Your task to perform on an android device: Add alienware aurora to the cart on walmart.com Image 0: 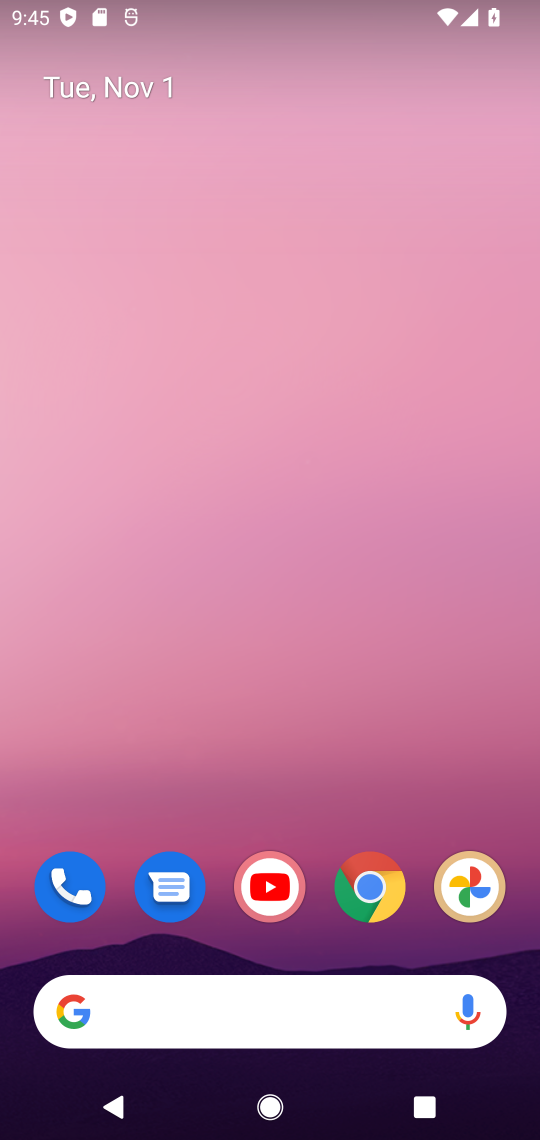
Step 0: press home button
Your task to perform on an android device: Add alienware aurora to the cart on walmart.com Image 1: 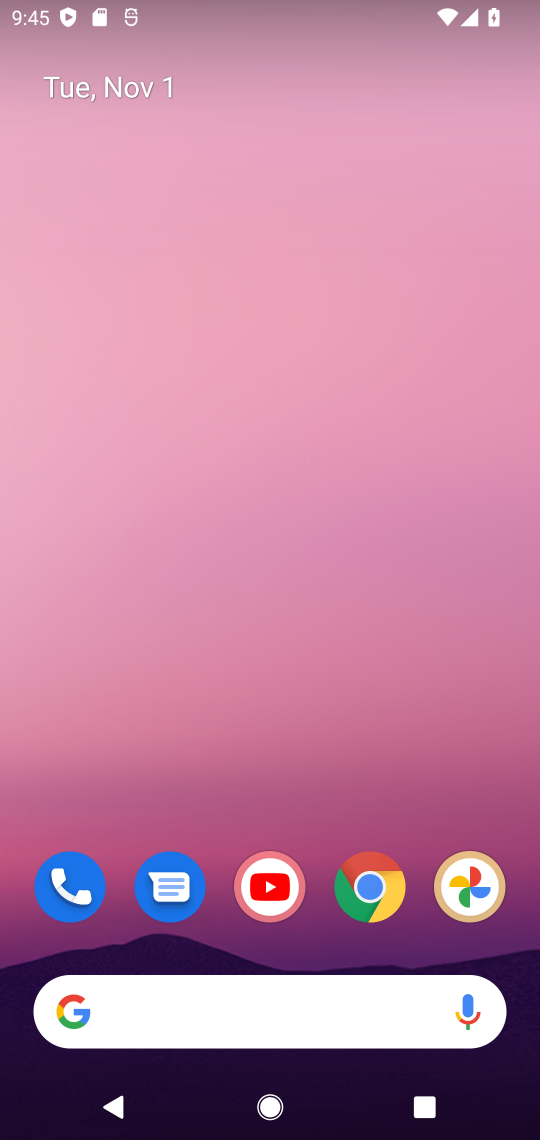
Step 1: click (381, 875)
Your task to perform on an android device: Add alienware aurora to the cart on walmart.com Image 2: 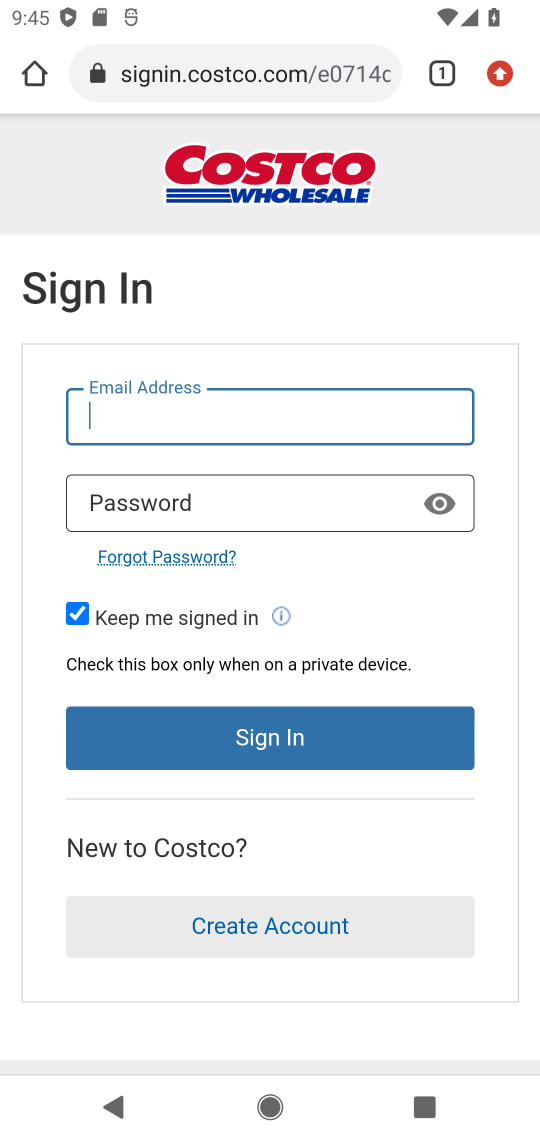
Step 2: click (191, 75)
Your task to perform on an android device: Add alienware aurora to the cart on walmart.com Image 3: 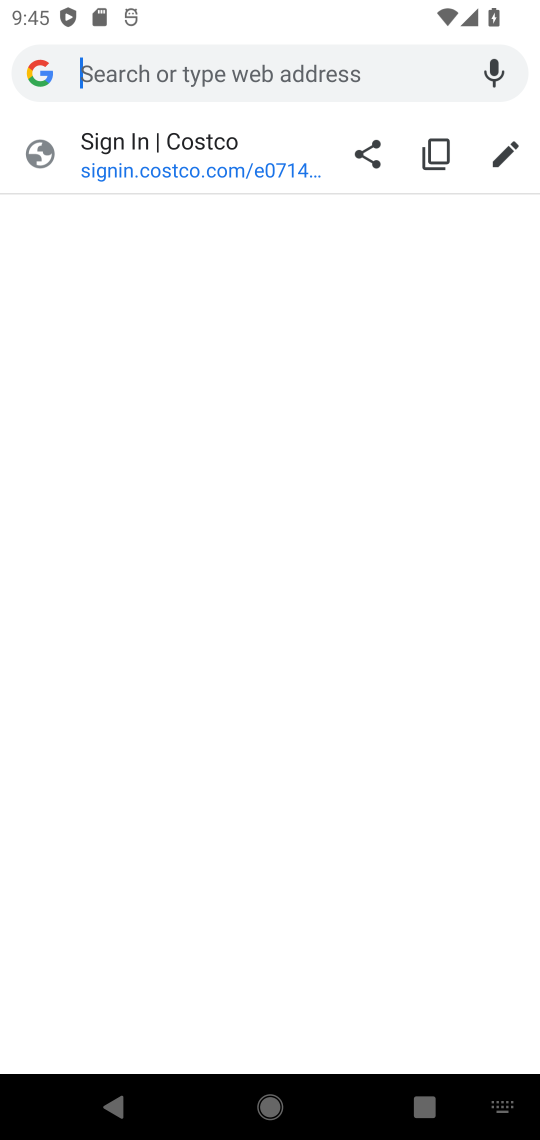
Step 3: type "walmart.com"
Your task to perform on an android device: Add alienware aurora to the cart on walmart.com Image 4: 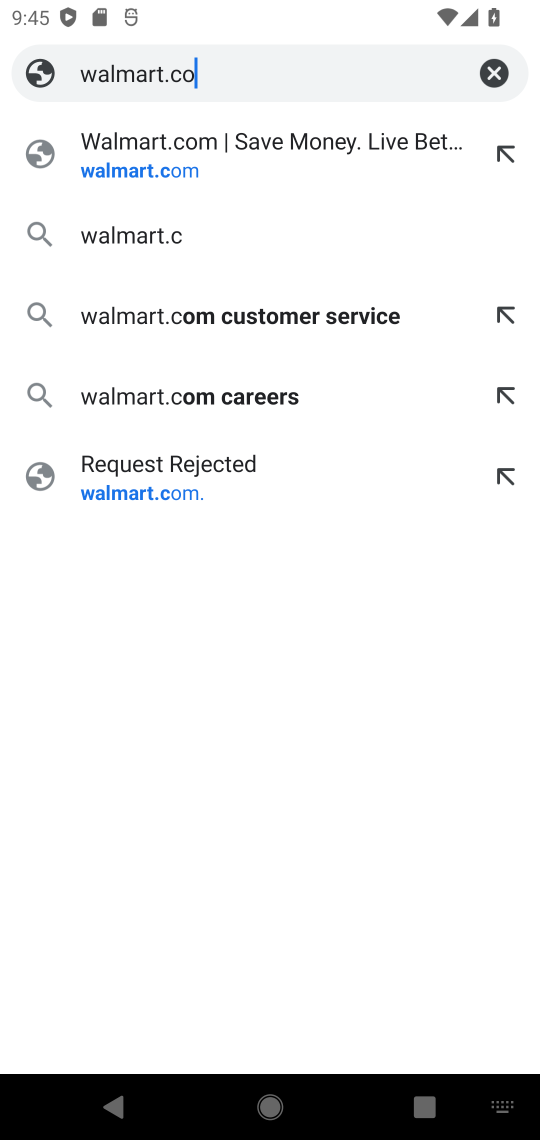
Step 4: press enter
Your task to perform on an android device: Add alienware aurora to the cart on walmart.com Image 5: 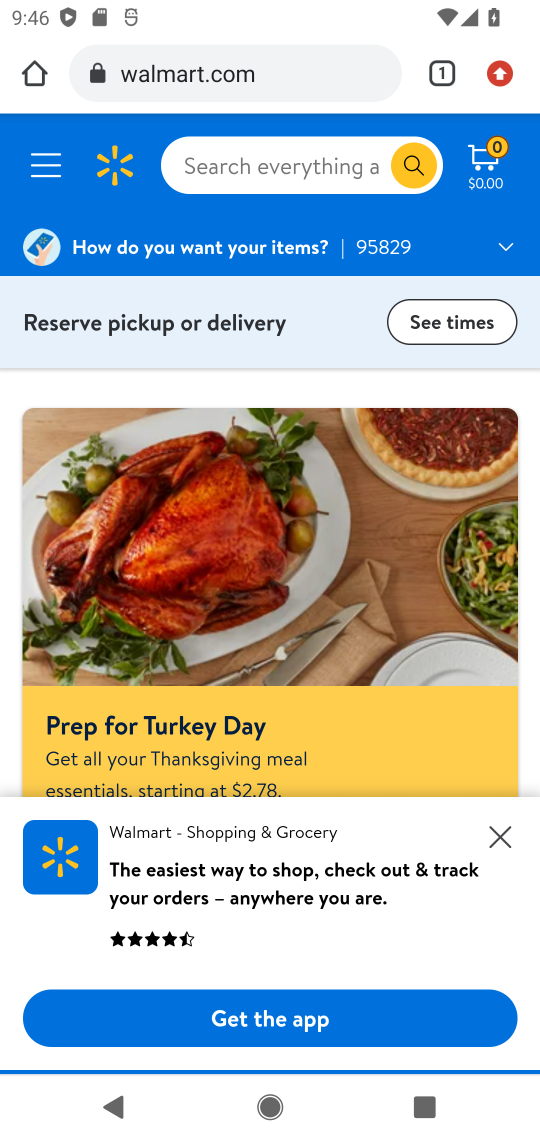
Step 5: click (228, 165)
Your task to perform on an android device: Add alienware aurora to the cart on walmart.com Image 6: 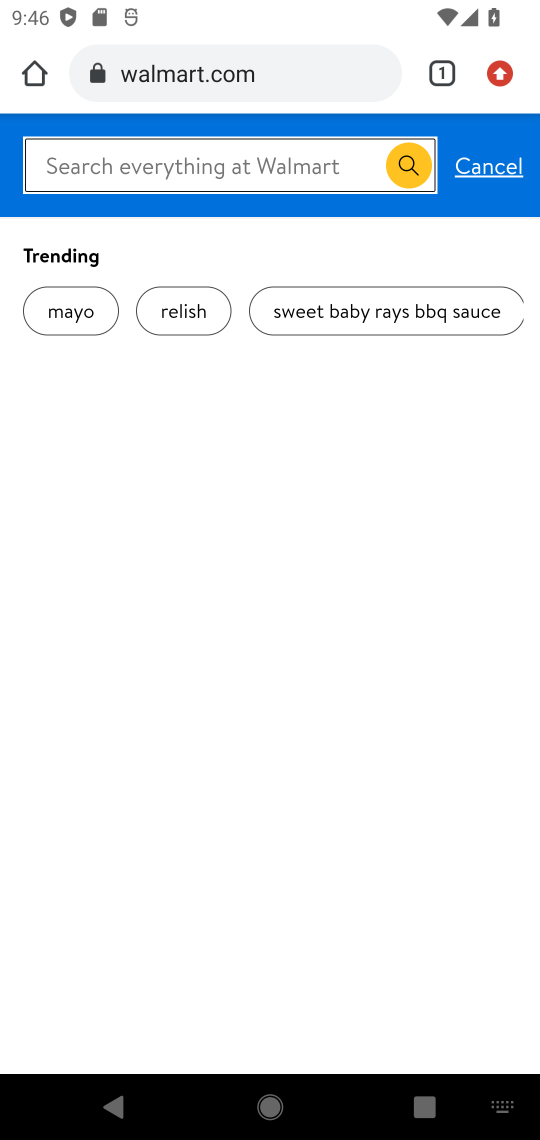
Step 6: press enter
Your task to perform on an android device: Add alienware aurora to the cart on walmart.com Image 7: 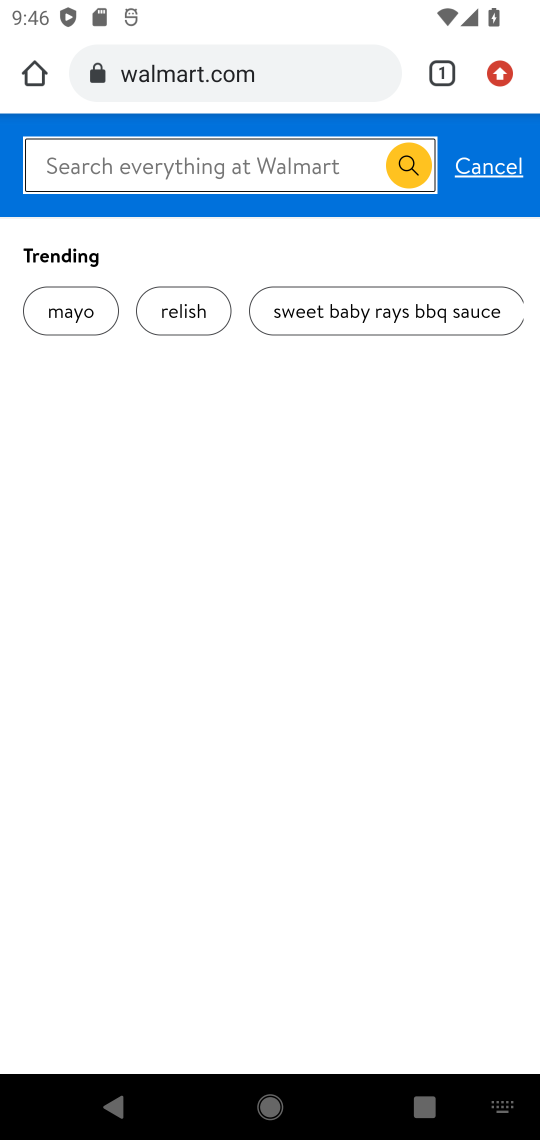
Step 7: type " alienware aurora"
Your task to perform on an android device: Add alienware aurora to the cart on walmart.com Image 8: 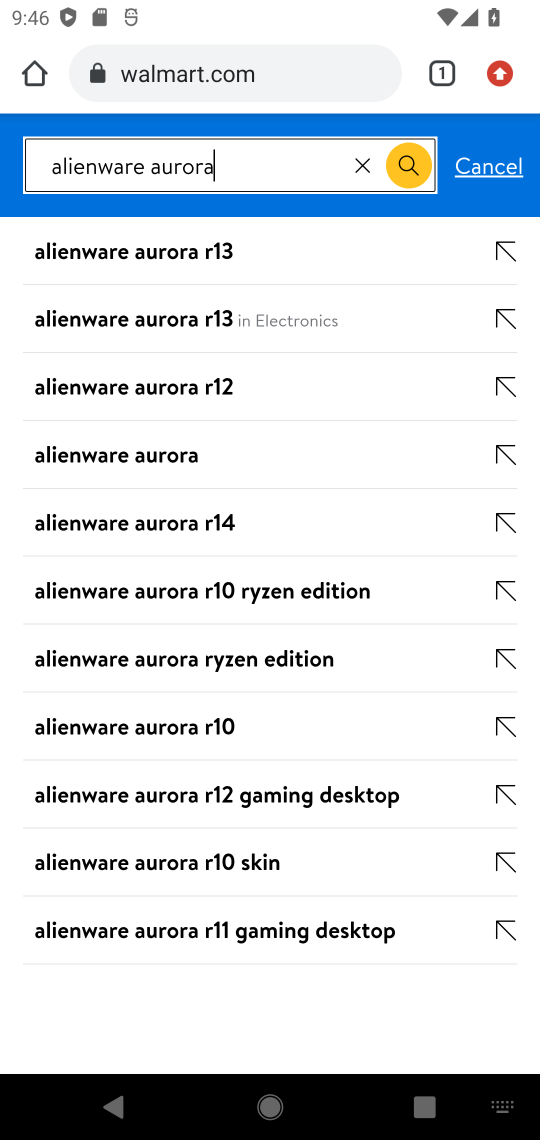
Step 8: click (154, 465)
Your task to perform on an android device: Add alienware aurora to the cart on walmart.com Image 9: 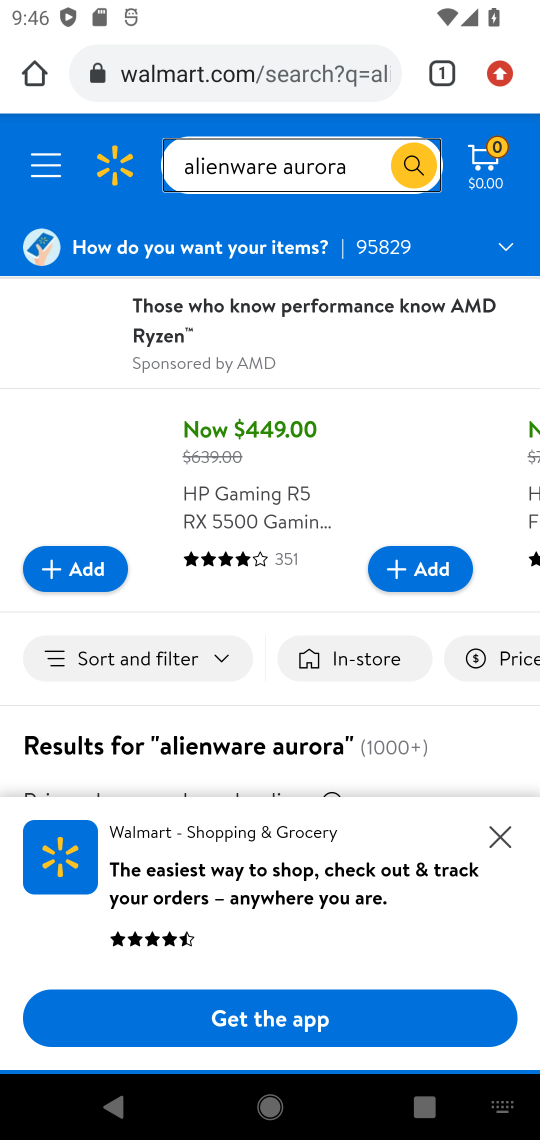
Step 9: click (501, 834)
Your task to perform on an android device: Add alienware aurora to the cart on walmart.com Image 10: 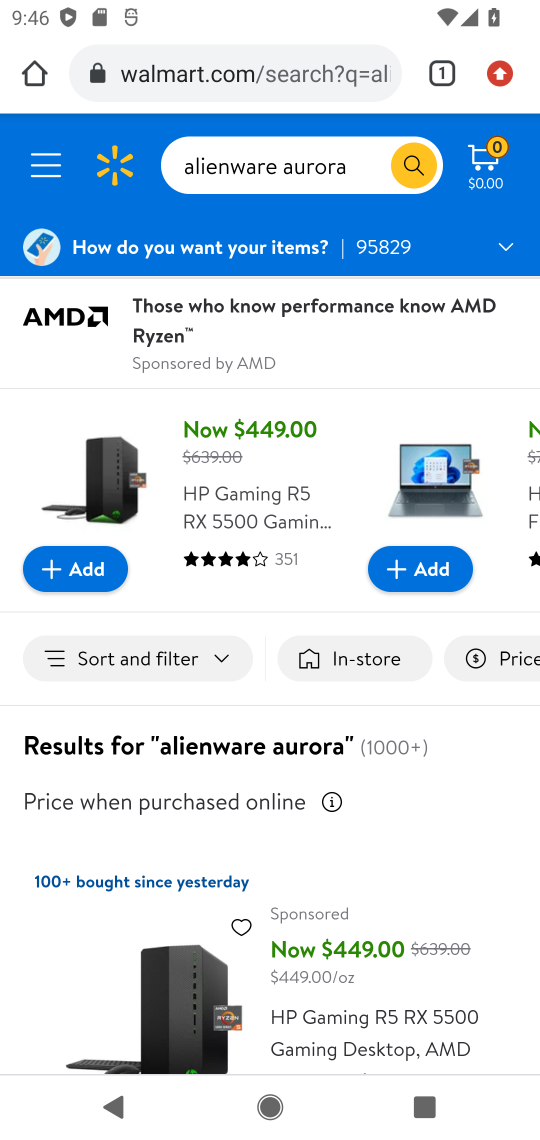
Step 10: drag from (90, 952) to (152, 575)
Your task to perform on an android device: Add alienware aurora to the cart on walmart.com Image 11: 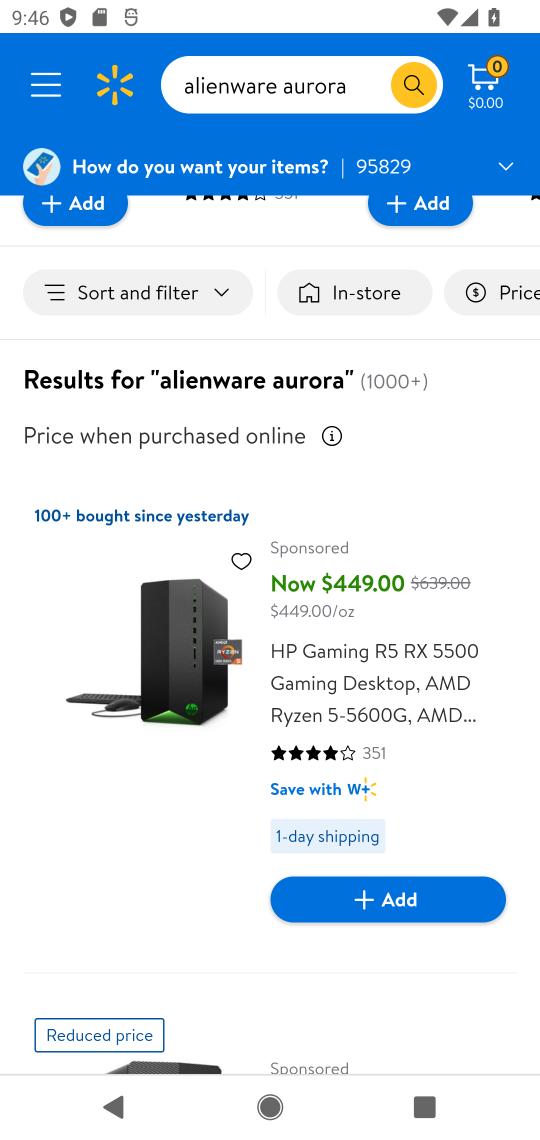
Step 11: drag from (237, 438) to (291, 927)
Your task to perform on an android device: Add alienware aurora to the cart on walmart.com Image 12: 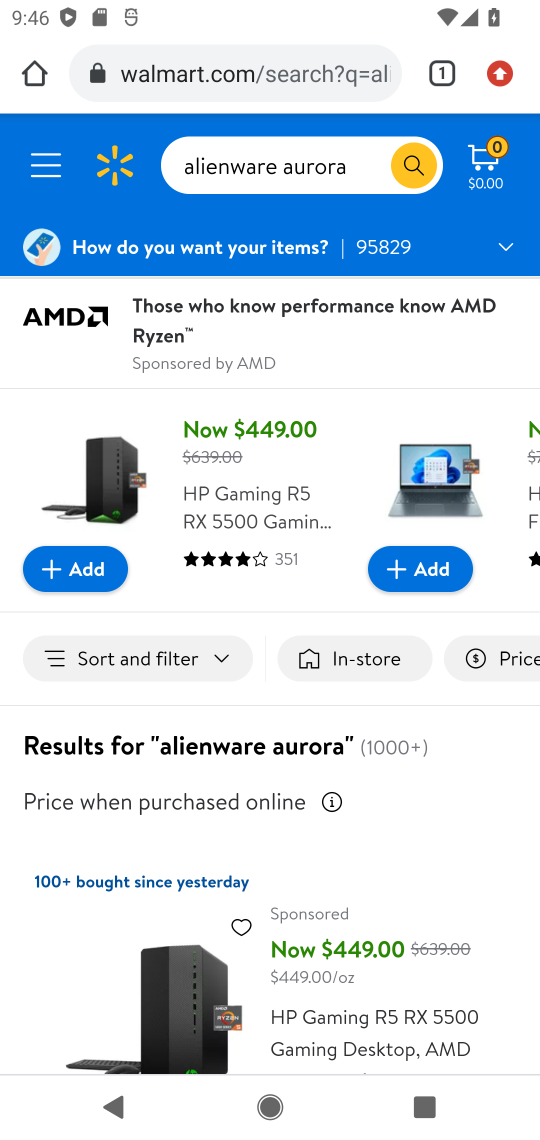
Step 12: click (75, 995)
Your task to perform on an android device: Add alienware aurora to the cart on walmart.com Image 13: 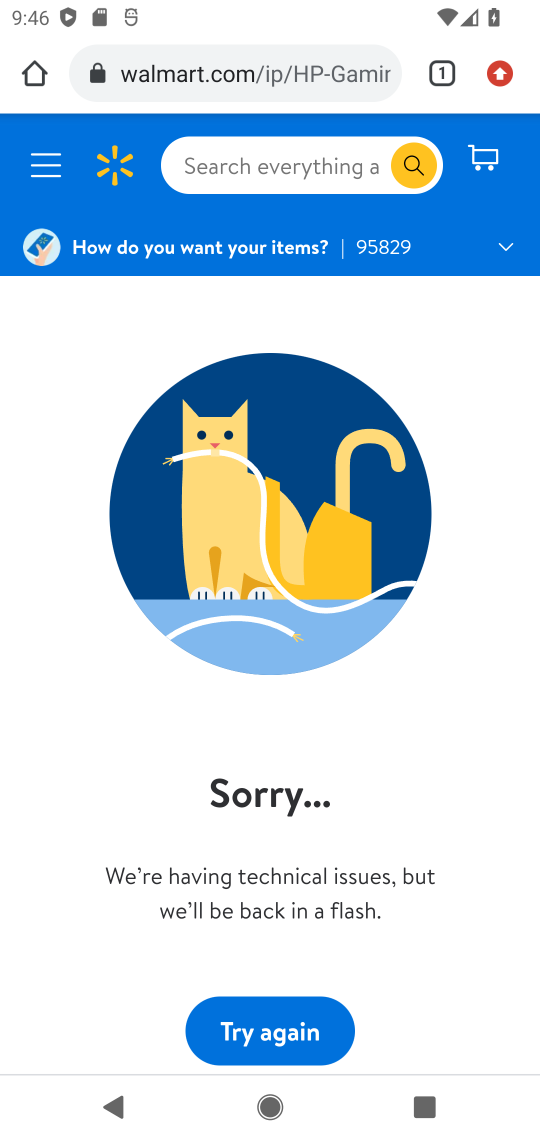
Step 13: press back button
Your task to perform on an android device: Add alienware aurora to the cart on walmart.com Image 14: 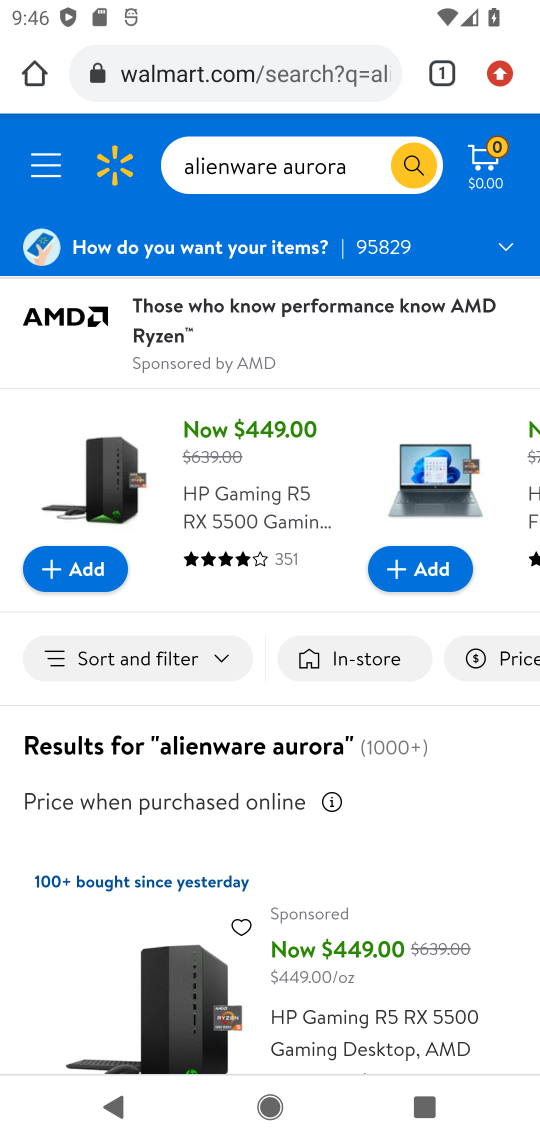
Step 14: click (73, 477)
Your task to perform on an android device: Add alienware aurora to the cart on walmart.com Image 15: 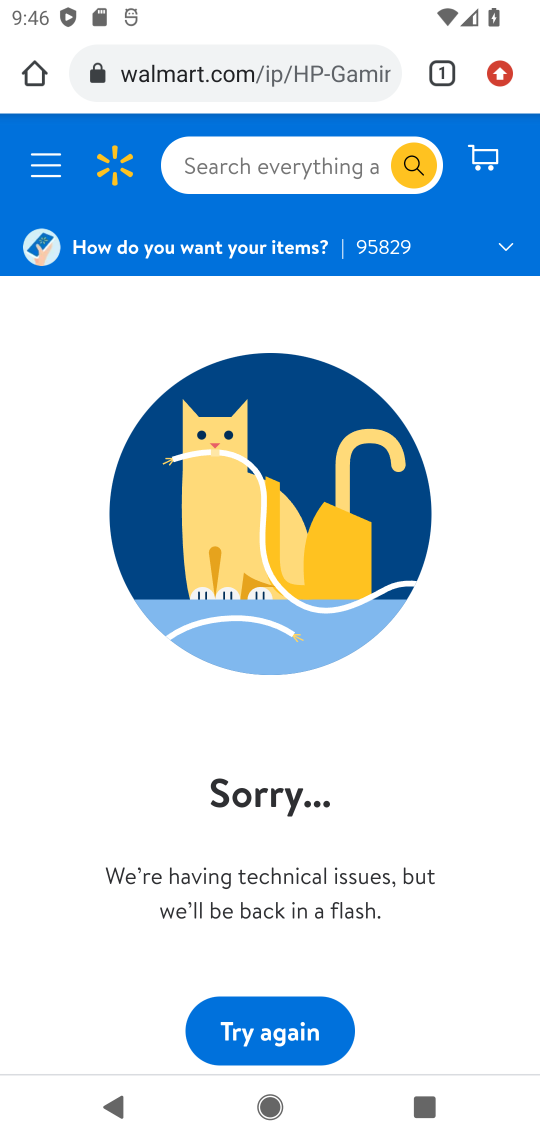
Step 15: task complete